Your task to perform on an android device: toggle sleep mode Image 0: 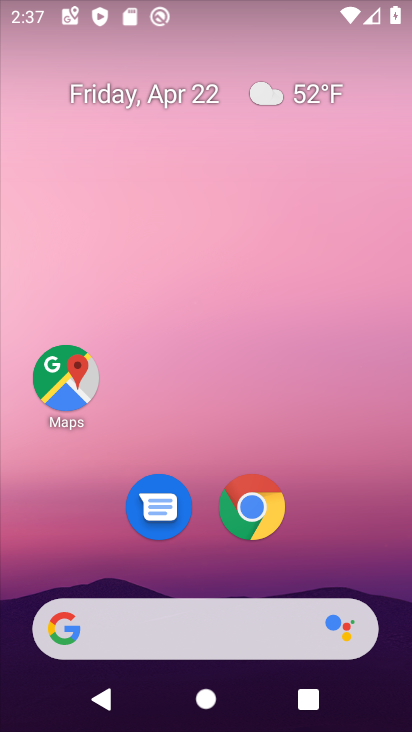
Step 0: drag from (167, 577) to (235, 78)
Your task to perform on an android device: toggle sleep mode Image 1: 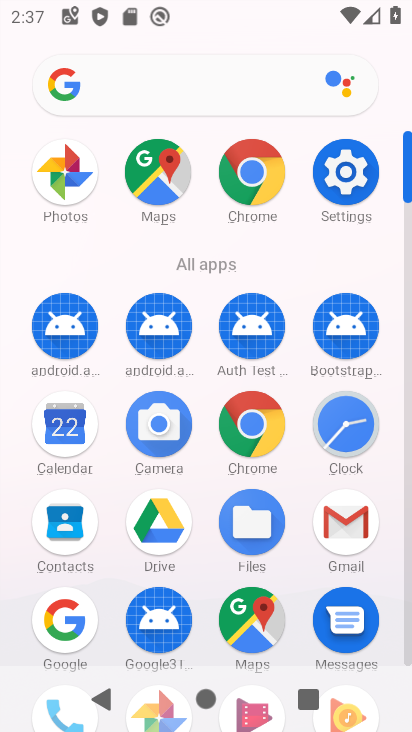
Step 1: click (342, 180)
Your task to perform on an android device: toggle sleep mode Image 2: 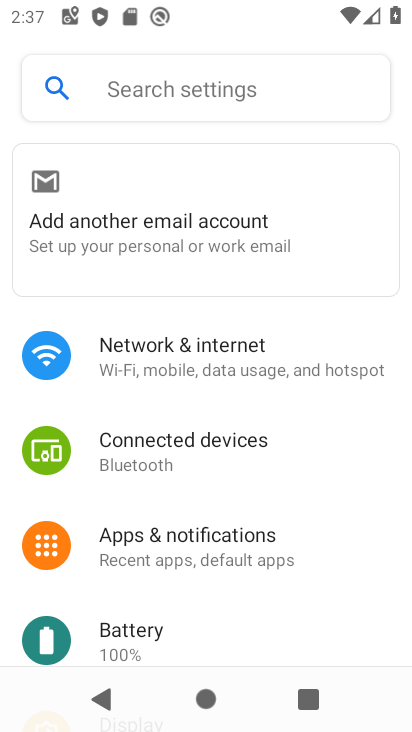
Step 2: drag from (131, 543) to (272, 91)
Your task to perform on an android device: toggle sleep mode Image 3: 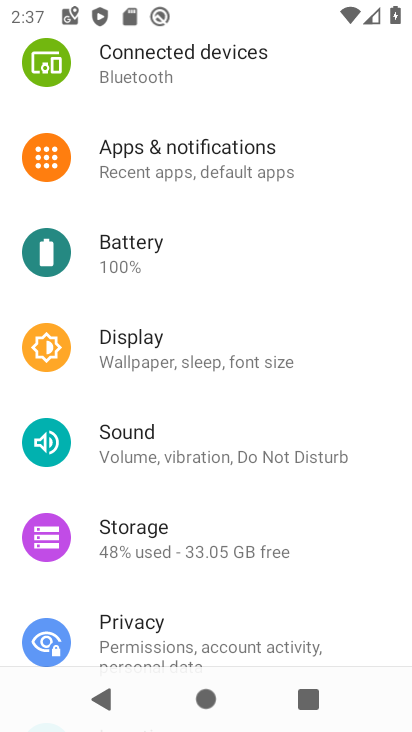
Step 3: click (151, 369)
Your task to perform on an android device: toggle sleep mode Image 4: 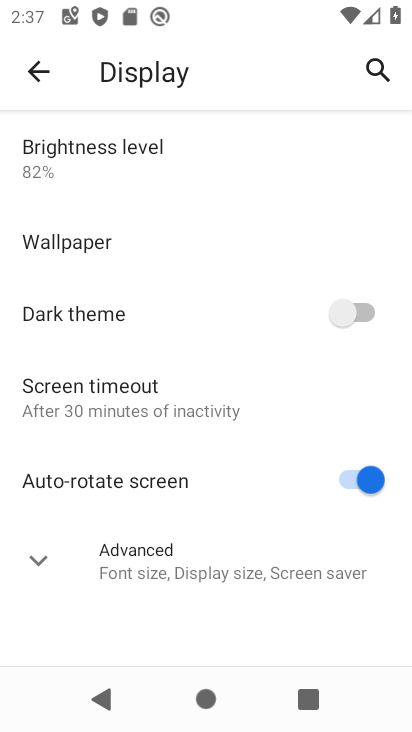
Step 4: click (190, 576)
Your task to perform on an android device: toggle sleep mode Image 5: 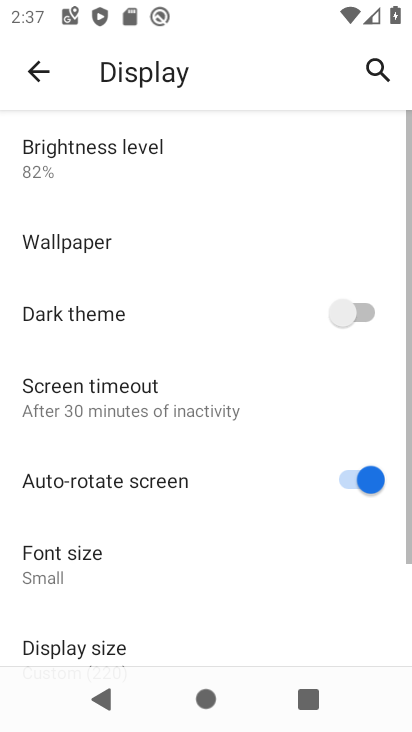
Step 5: task complete